Your task to perform on an android device: refresh tabs in the chrome app Image 0: 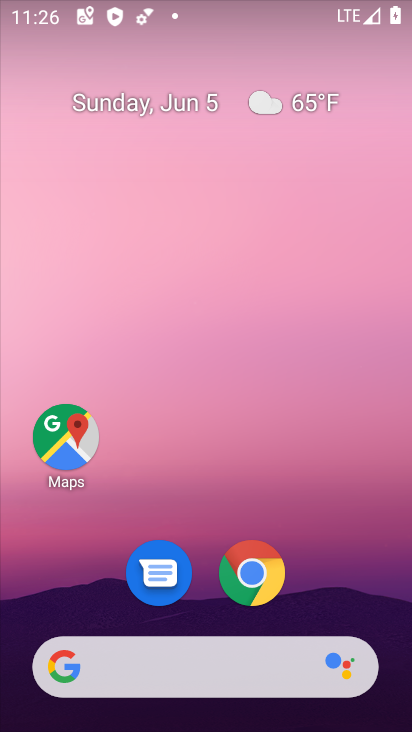
Step 0: drag from (250, 513) to (256, 75)
Your task to perform on an android device: refresh tabs in the chrome app Image 1: 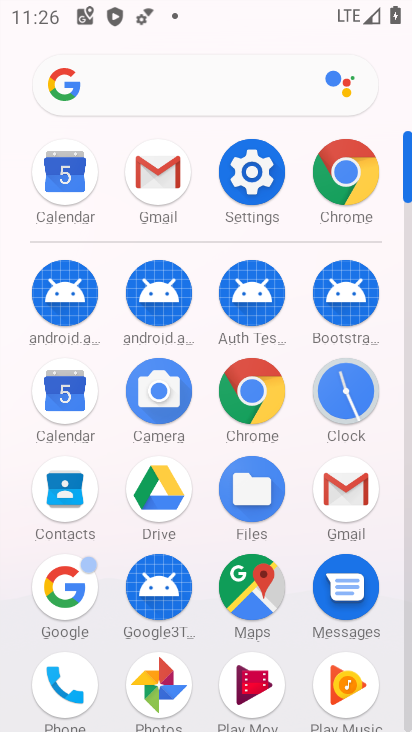
Step 1: click (255, 397)
Your task to perform on an android device: refresh tabs in the chrome app Image 2: 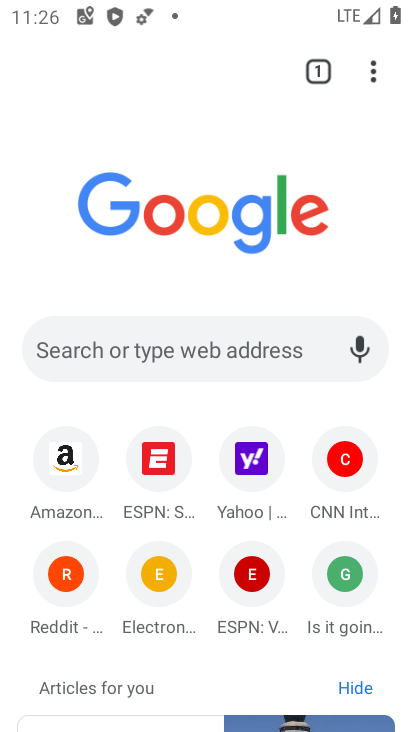
Step 2: click (379, 73)
Your task to perform on an android device: refresh tabs in the chrome app Image 3: 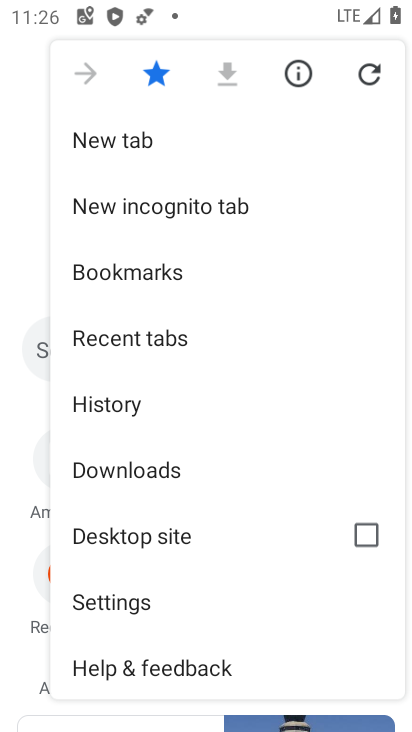
Step 3: click (363, 80)
Your task to perform on an android device: refresh tabs in the chrome app Image 4: 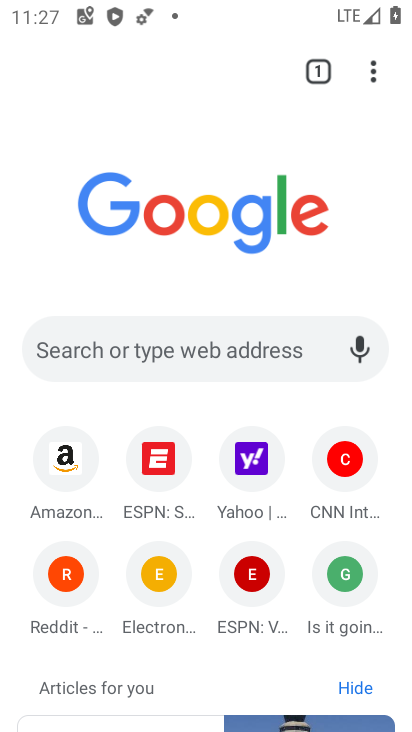
Step 4: click (372, 83)
Your task to perform on an android device: refresh tabs in the chrome app Image 5: 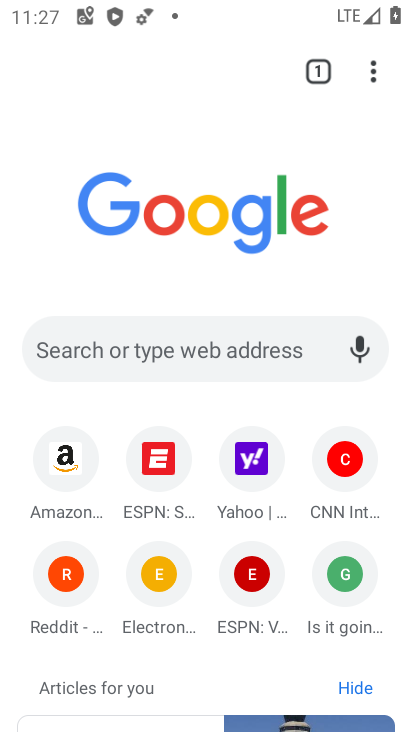
Step 5: click (379, 74)
Your task to perform on an android device: refresh tabs in the chrome app Image 6: 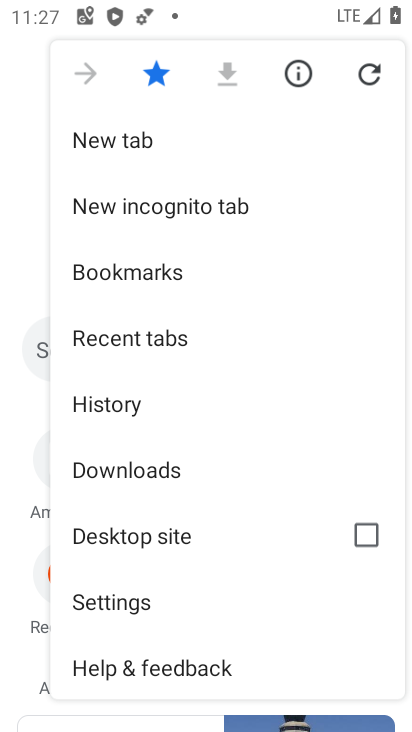
Step 6: click (367, 80)
Your task to perform on an android device: refresh tabs in the chrome app Image 7: 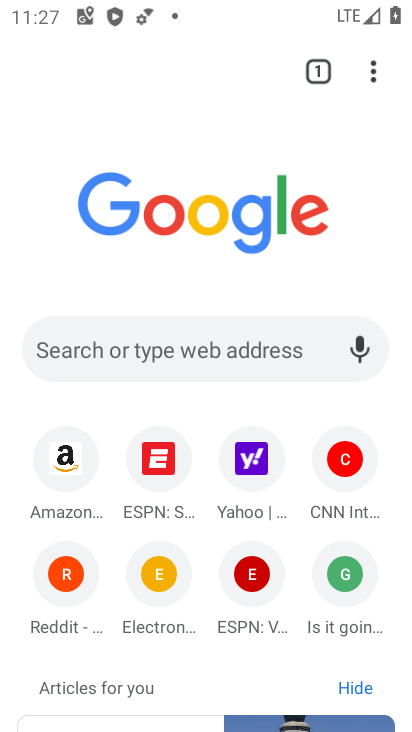
Step 7: task complete